Your task to perform on an android device: Go to display settings Image 0: 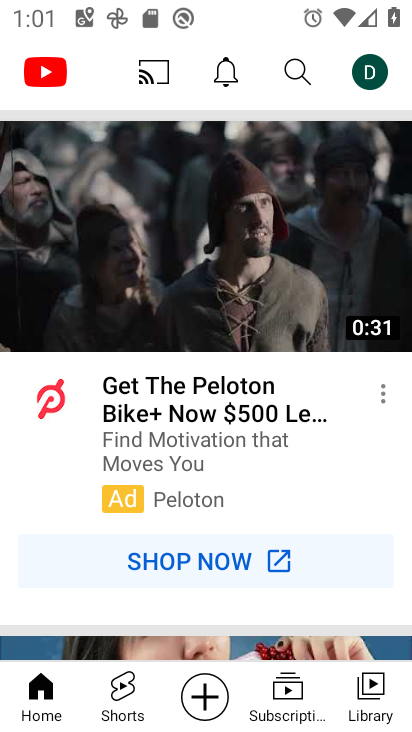
Step 0: press home button
Your task to perform on an android device: Go to display settings Image 1: 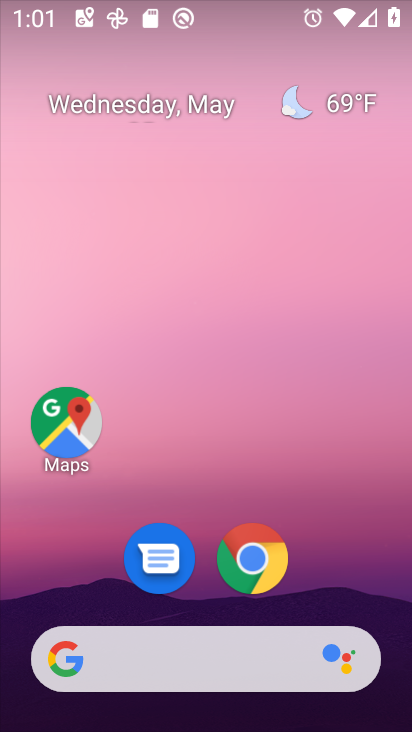
Step 1: drag from (399, 642) to (223, 62)
Your task to perform on an android device: Go to display settings Image 2: 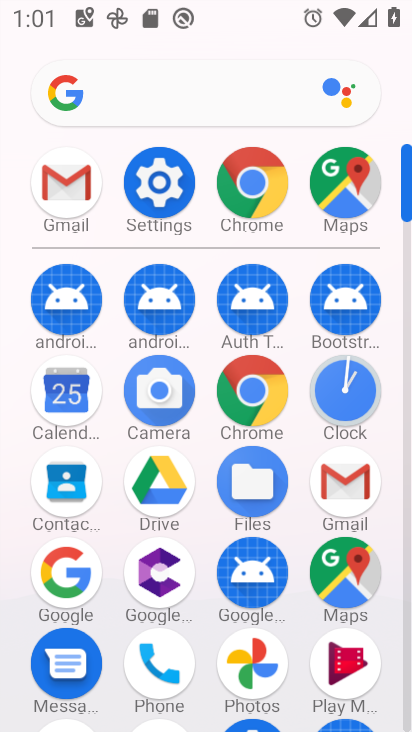
Step 2: click (165, 190)
Your task to perform on an android device: Go to display settings Image 3: 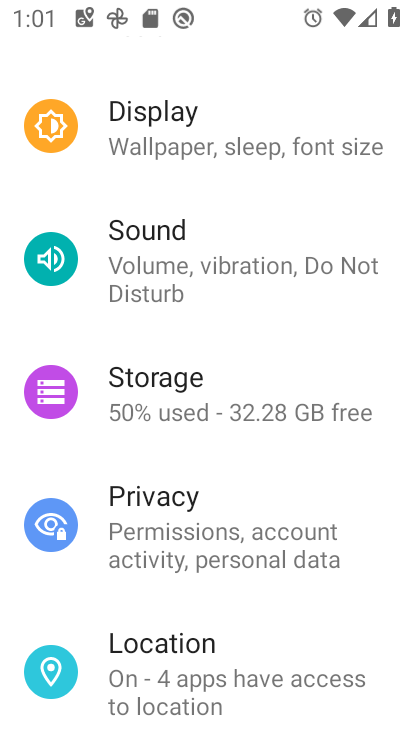
Step 3: click (209, 148)
Your task to perform on an android device: Go to display settings Image 4: 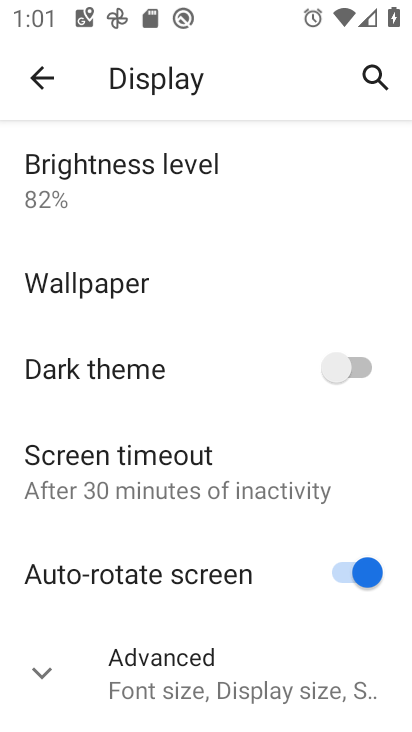
Step 4: task complete